Your task to perform on an android device: open wifi settings Image 0: 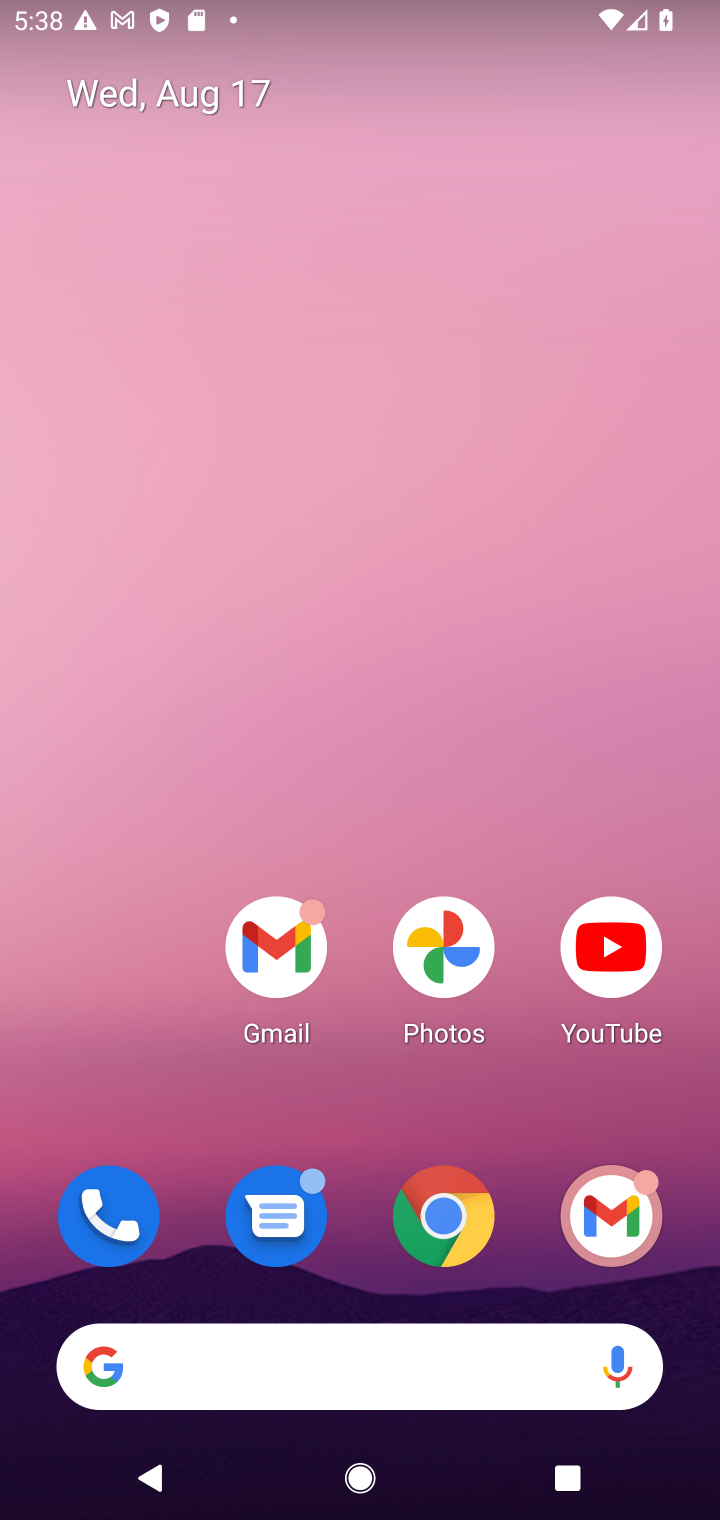
Step 0: drag from (142, 146) to (129, 1045)
Your task to perform on an android device: open wifi settings Image 1: 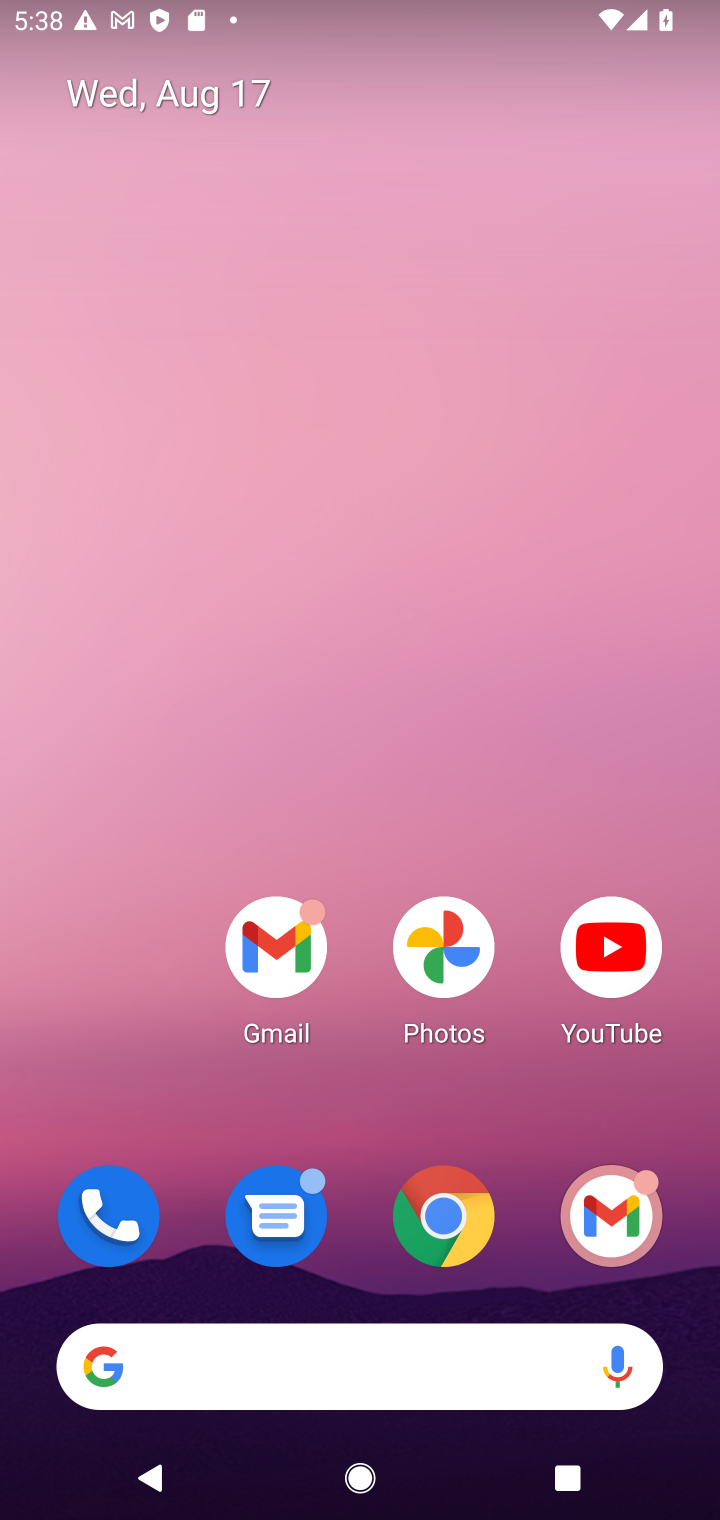
Step 1: drag from (248, 0) to (230, 238)
Your task to perform on an android device: open wifi settings Image 2: 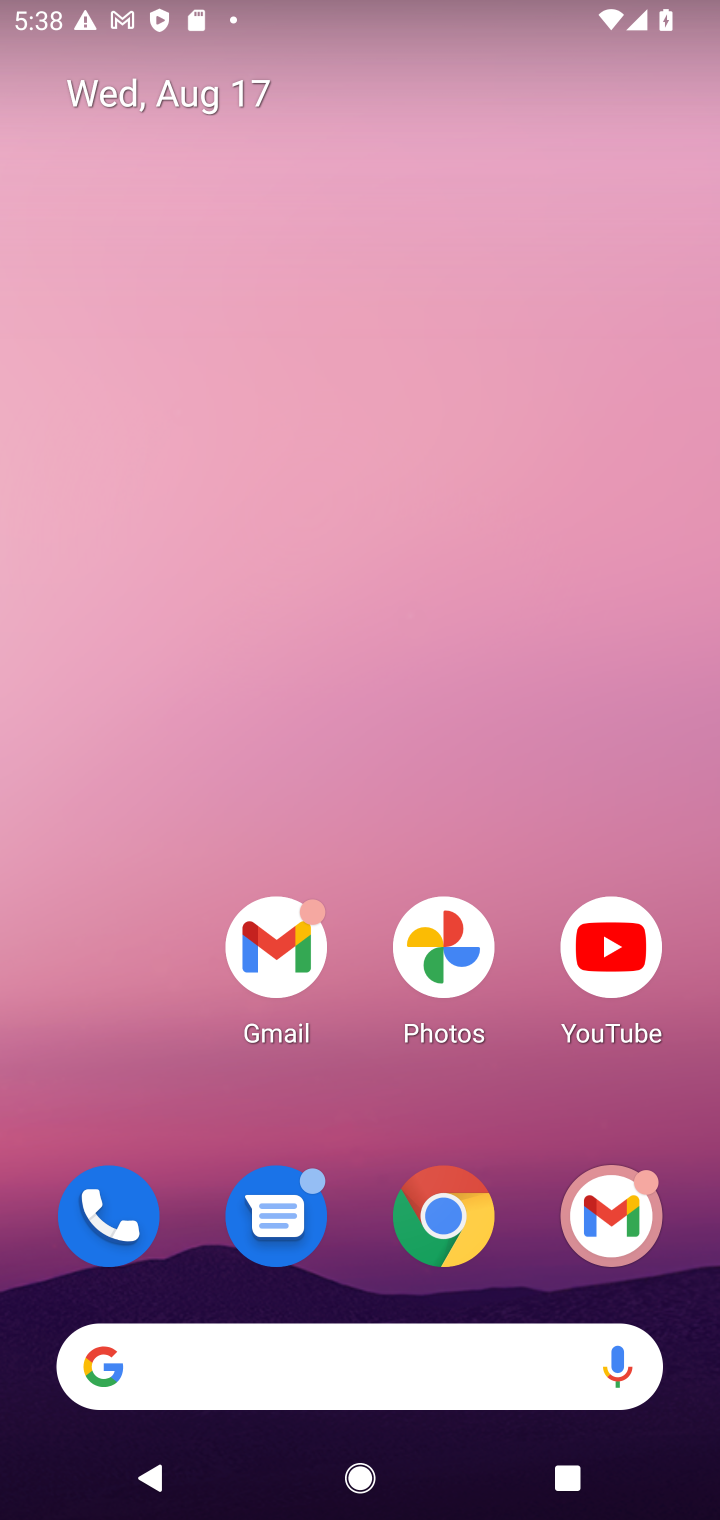
Step 2: drag from (175, 29) to (46, 919)
Your task to perform on an android device: open wifi settings Image 3: 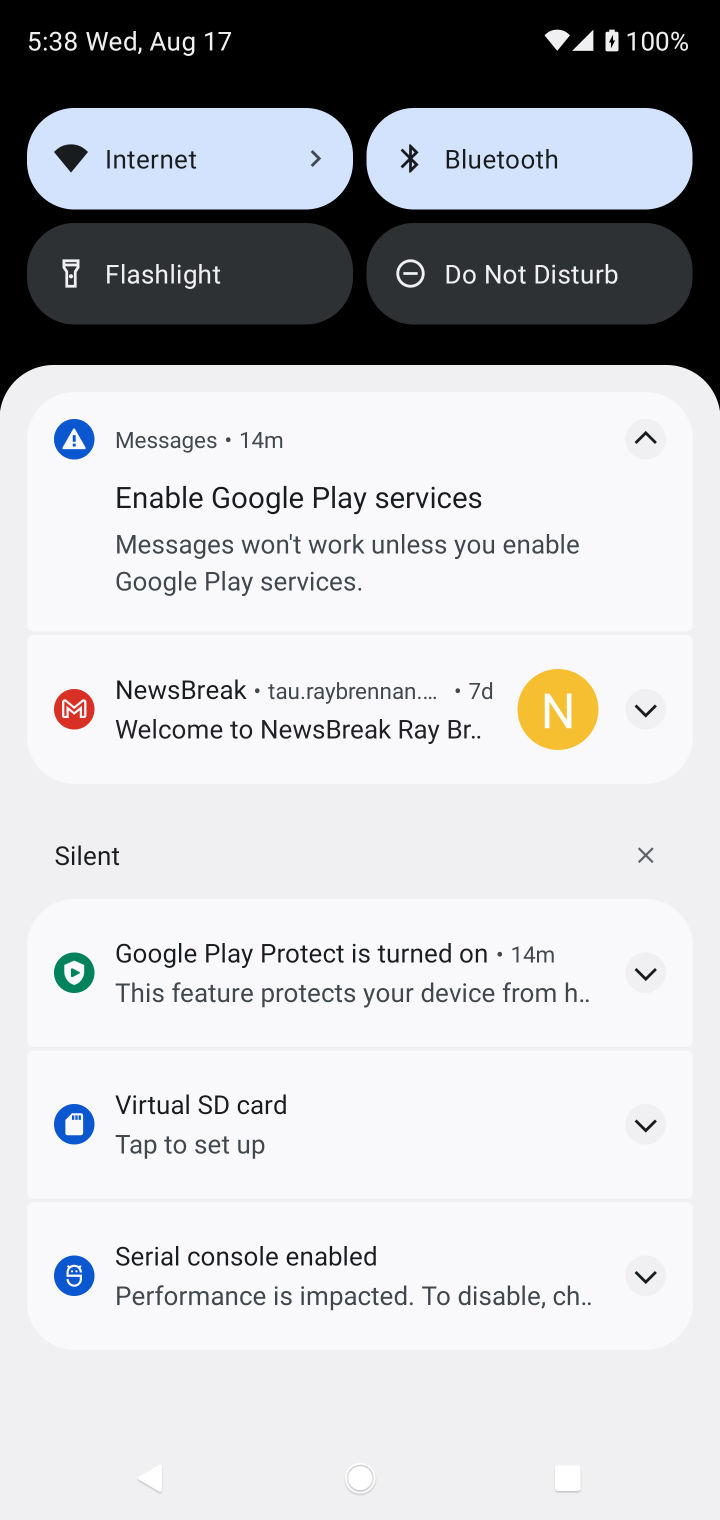
Step 3: click (151, 143)
Your task to perform on an android device: open wifi settings Image 4: 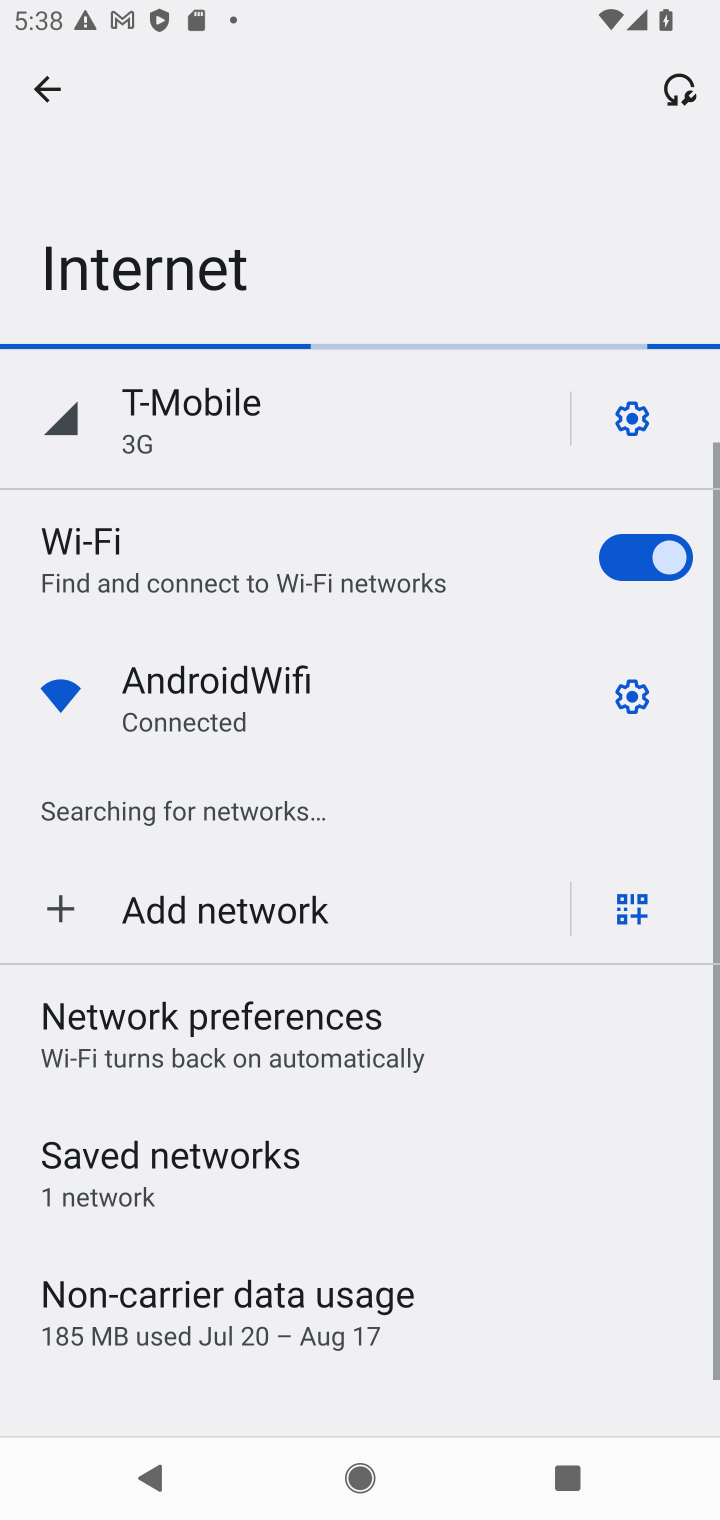
Step 4: task complete